Your task to perform on an android device: Do I have any events tomorrow? Image 0: 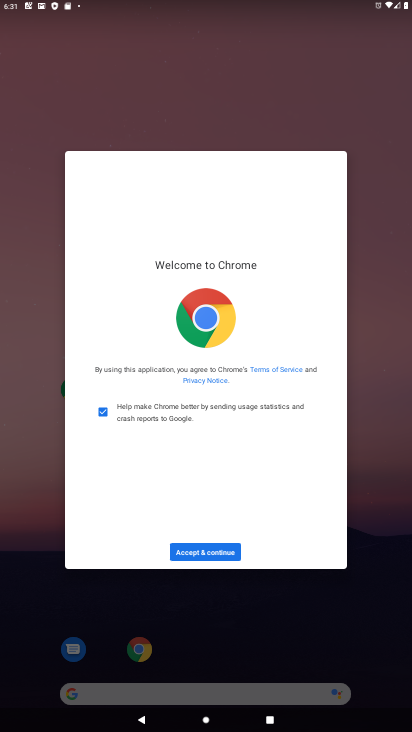
Step 0: press home button
Your task to perform on an android device: Do I have any events tomorrow? Image 1: 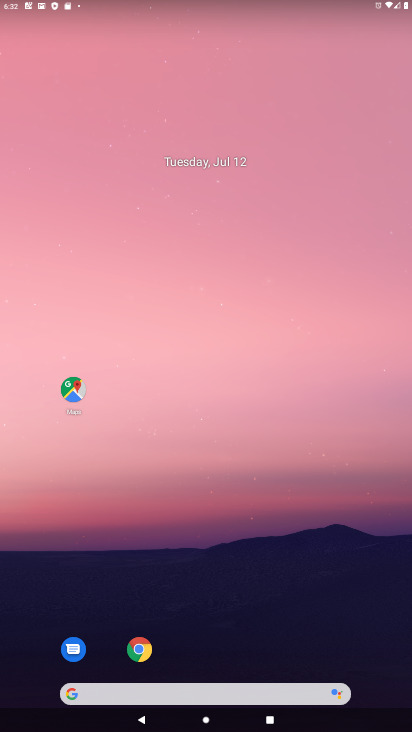
Step 1: drag from (186, 689) to (260, 116)
Your task to perform on an android device: Do I have any events tomorrow? Image 2: 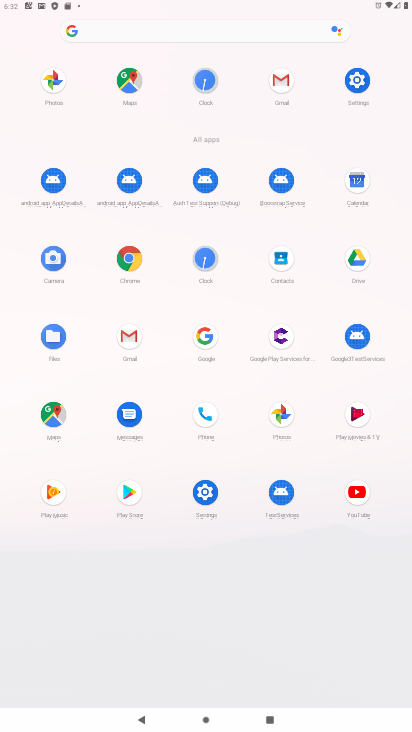
Step 2: click (357, 180)
Your task to perform on an android device: Do I have any events tomorrow? Image 3: 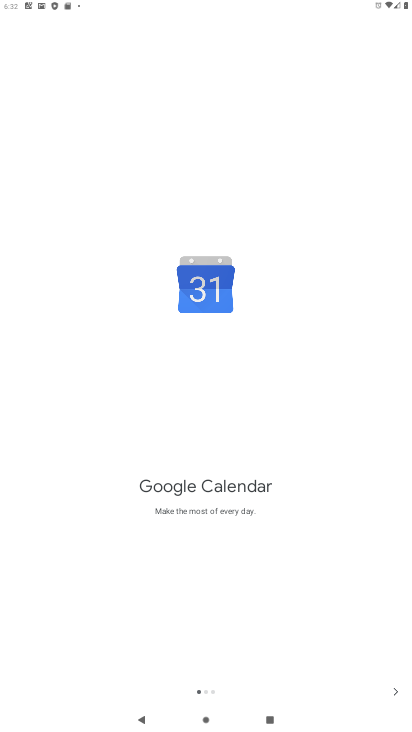
Step 3: click (398, 691)
Your task to perform on an android device: Do I have any events tomorrow? Image 4: 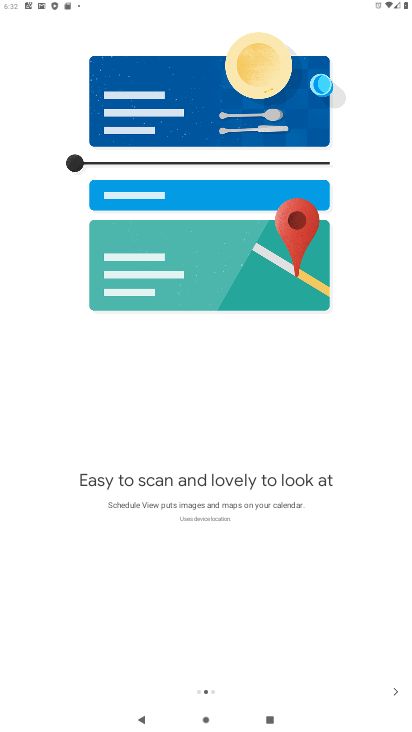
Step 4: click (398, 691)
Your task to perform on an android device: Do I have any events tomorrow? Image 5: 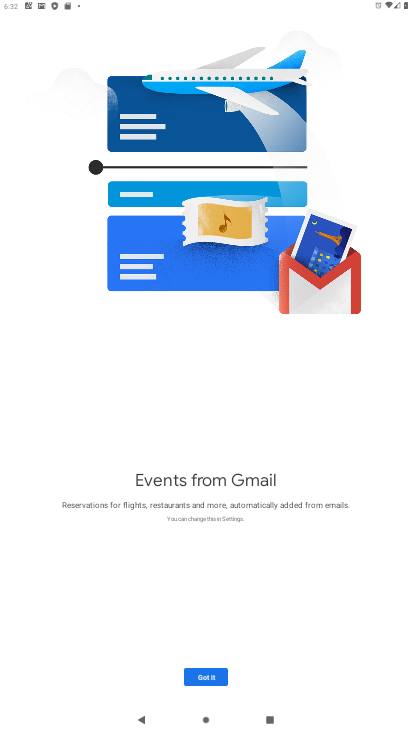
Step 5: click (208, 677)
Your task to perform on an android device: Do I have any events tomorrow? Image 6: 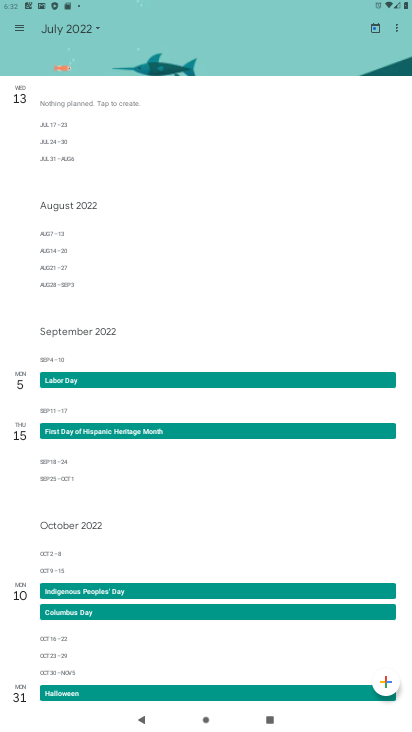
Step 6: click (376, 28)
Your task to perform on an android device: Do I have any events tomorrow? Image 7: 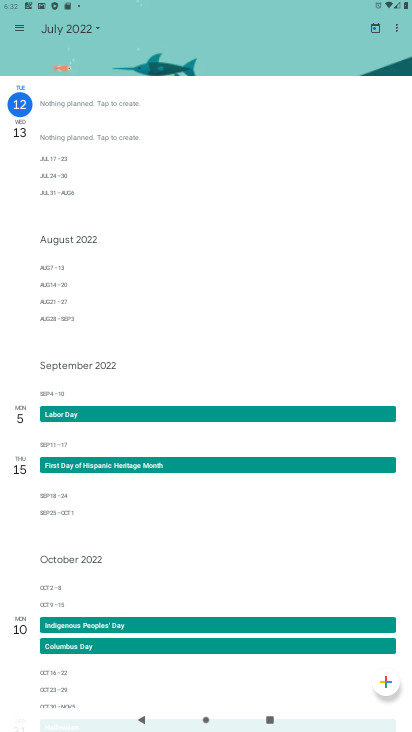
Step 7: click (95, 30)
Your task to perform on an android device: Do I have any events tomorrow? Image 8: 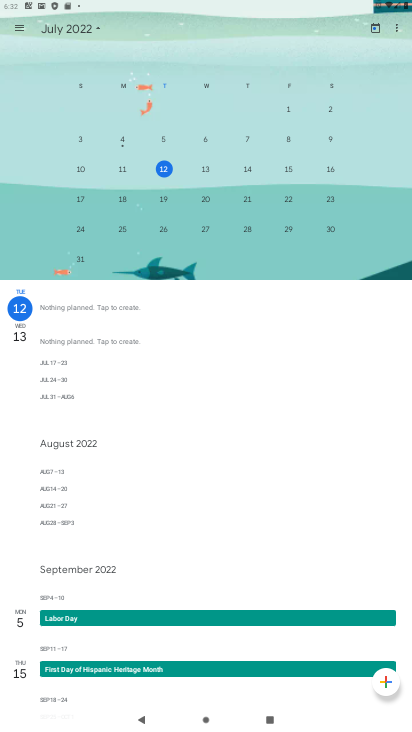
Step 8: click (207, 171)
Your task to perform on an android device: Do I have any events tomorrow? Image 9: 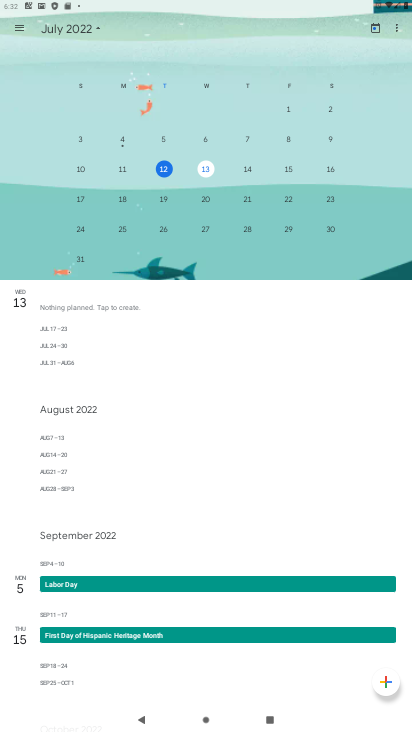
Step 9: click (18, 29)
Your task to perform on an android device: Do I have any events tomorrow? Image 10: 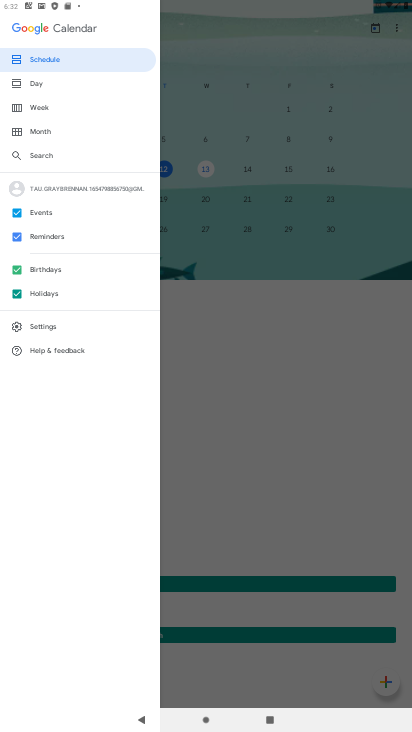
Step 10: click (73, 58)
Your task to perform on an android device: Do I have any events tomorrow? Image 11: 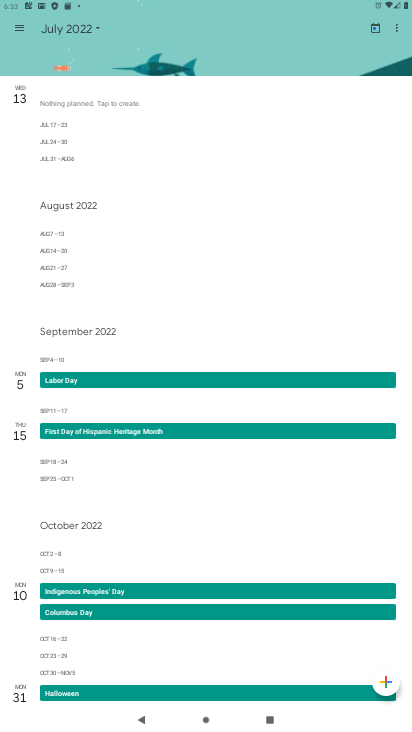
Step 11: task complete